Your task to perform on an android device: What's US dollar exchange rate against the South Korean Won? Image 0: 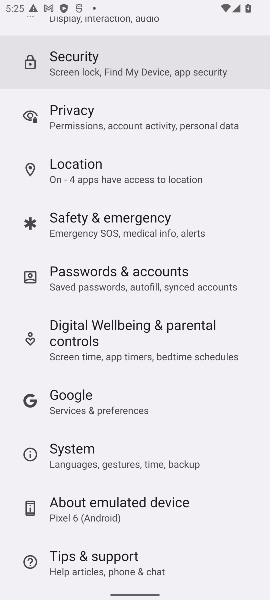
Step 0: press home button
Your task to perform on an android device: What's US dollar exchange rate against the South Korean Won? Image 1: 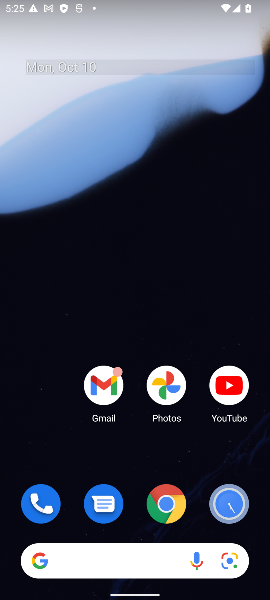
Step 1: drag from (140, 530) to (104, 122)
Your task to perform on an android device: What's US dollar exchange rate against the South Korean Won? Image 2: 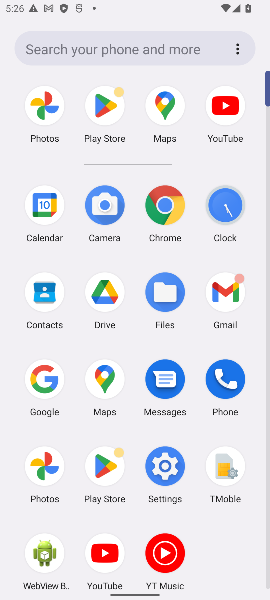
Step 2: click (160, 209)
Your task to perform on an android device: What's US dollar exchange rate against the South Korean Won? Image 3: 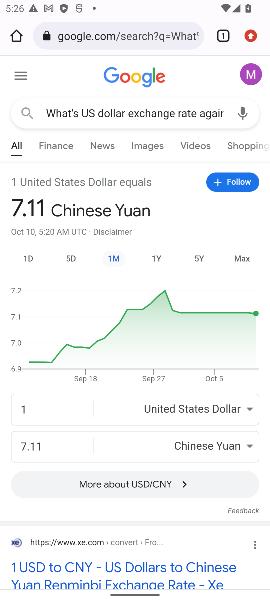
Step 3: click (150, 31)
Your task to perform on an android device: What's US dollar exchange rate against the South Korean Won? Image 4: 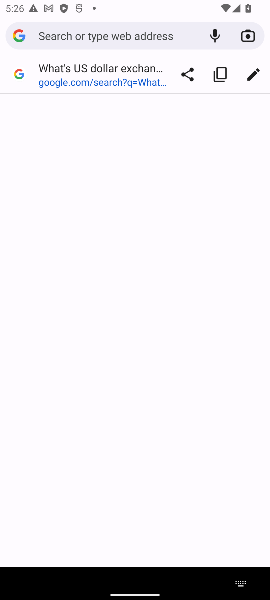
Step 4: type "What's US dollar exchange rate against the South Korean Won?"
Your task to perform on an android device: What's US dollar exchange rate against the South Korean Won? Image 5: 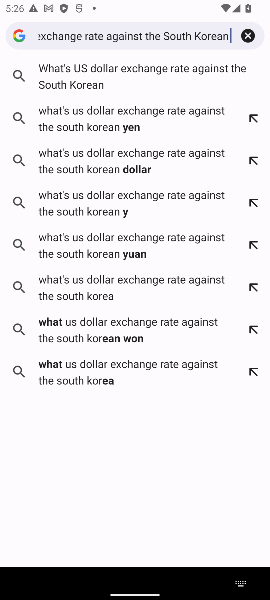
Step 5: press enter
Your task to perform on an android device: What's US dollar exchange rate against the South Korean Won? Image 6: 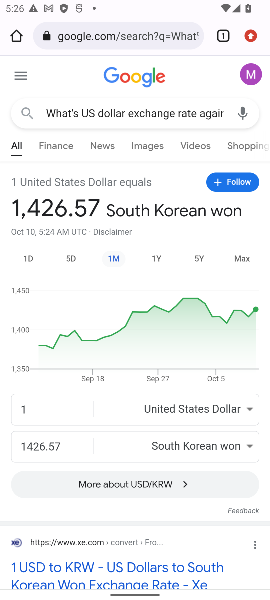
Step 6: task complete